Your task to perform on an android device: Open calendar and show me the third week of next month Image 0: 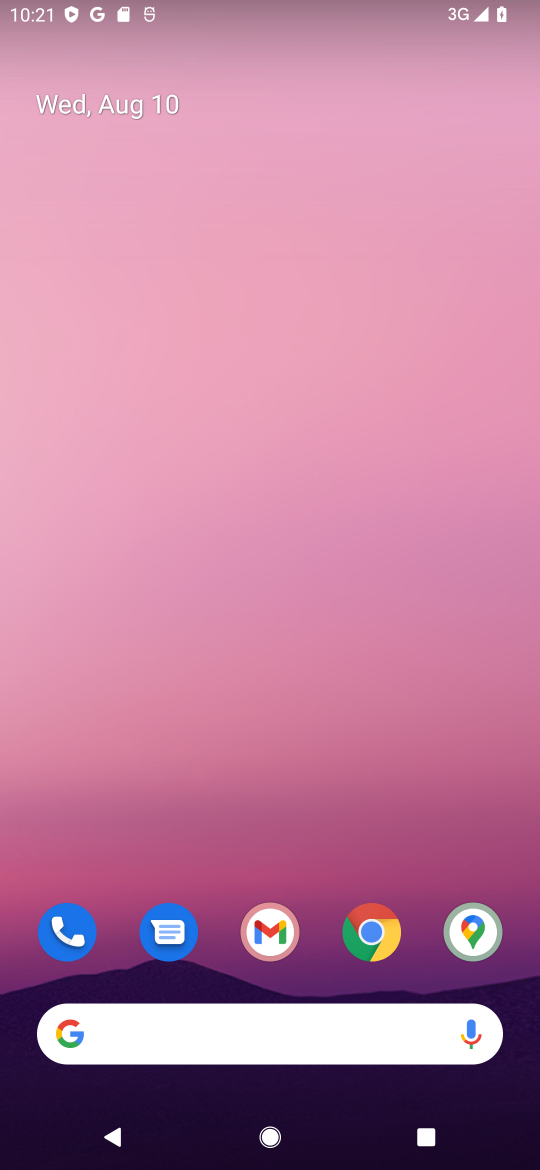
Step 0: drag from (275, 861) to (297, 128)
Your task to perform on an android device: Open calendar and show me the third week of next month Image 1: 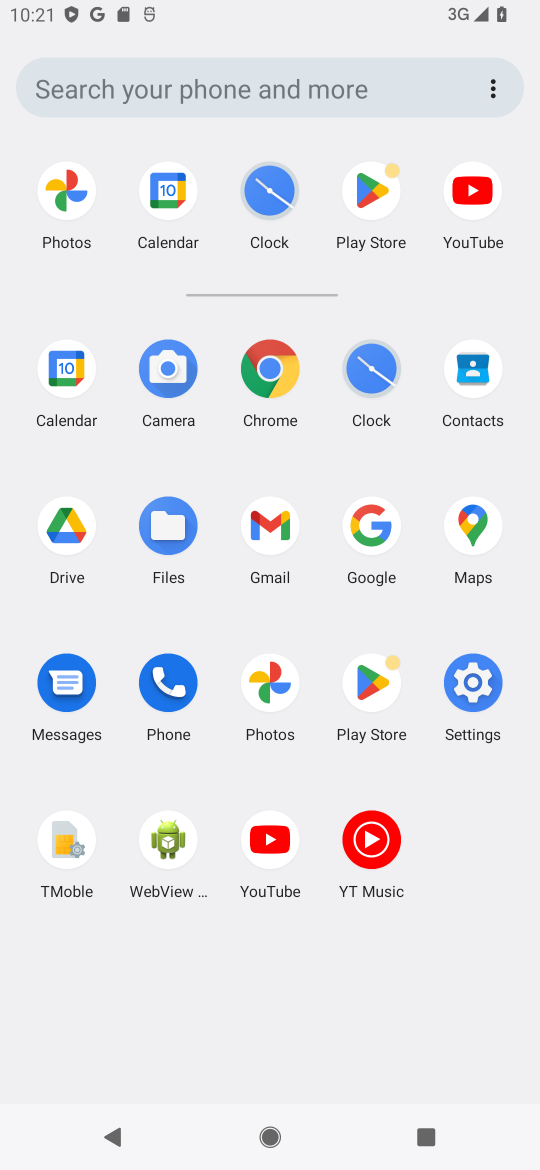
Step 1: click (60, 366)
Your task to perform on an android device: Open calendar and show me the third week of next month Image 2: 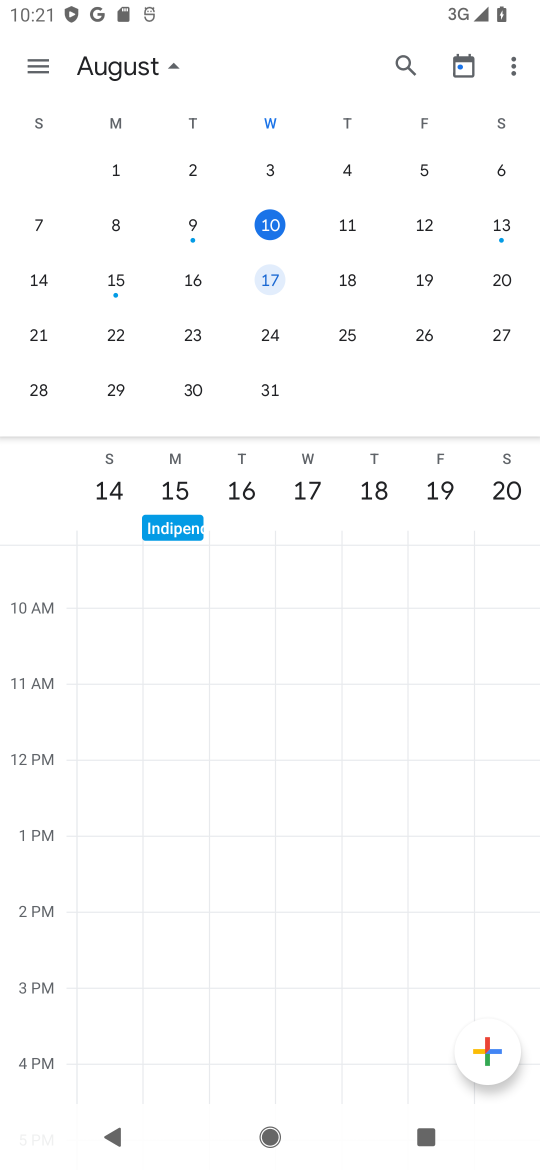
Step 2: drag from (493, 248) to (31, 338)
Your task to perform on an android device: Open calendar and show me the third week of next month Image 3: 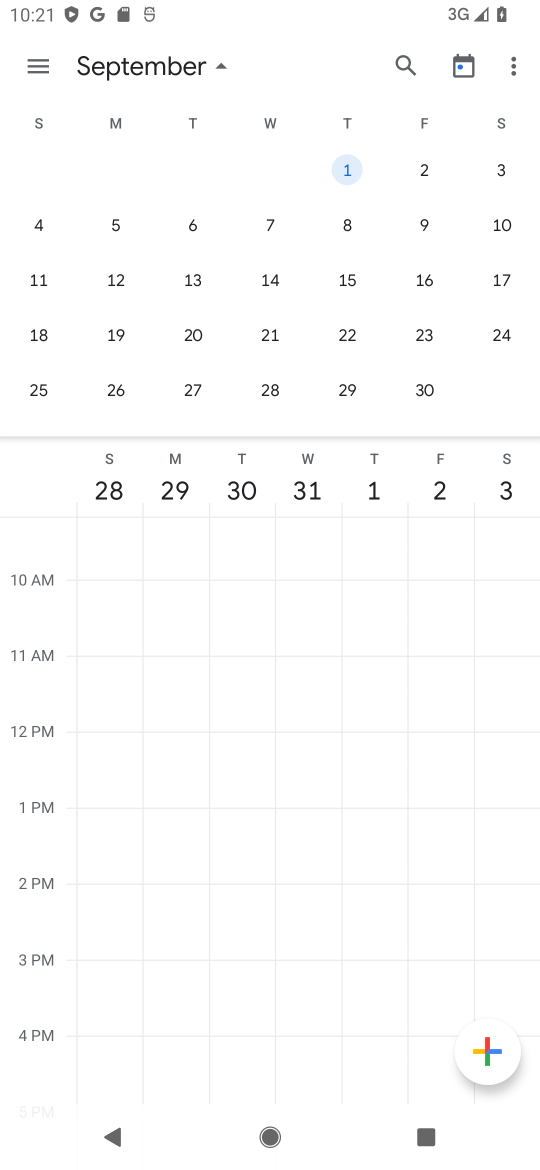
Step 3: click (271, 273)
Your task to perform on an android device: Open calendar and show me the third week of next month Image 4: 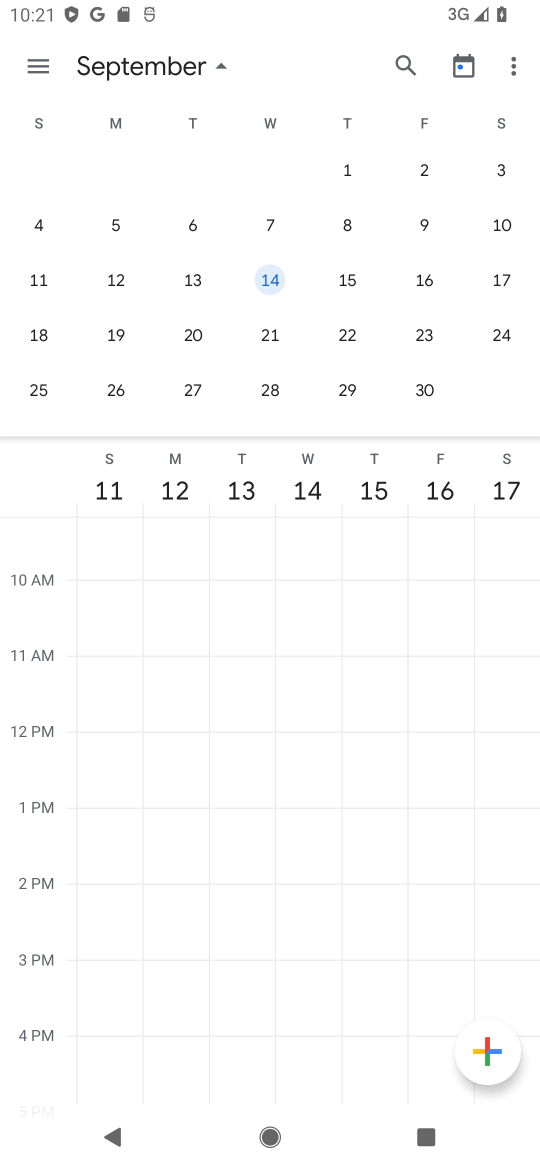
Step 4: task complete